Your task to perform on an android device: open wifi settings Image 0: 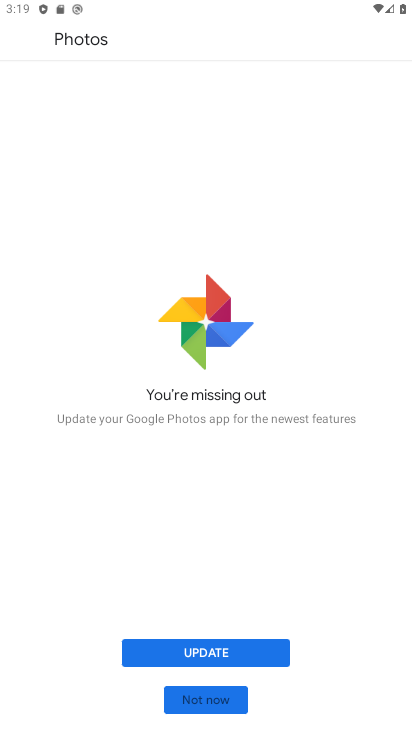
Step 0: press home button
Your task to perform on an android device: open wifi settings Image 1: 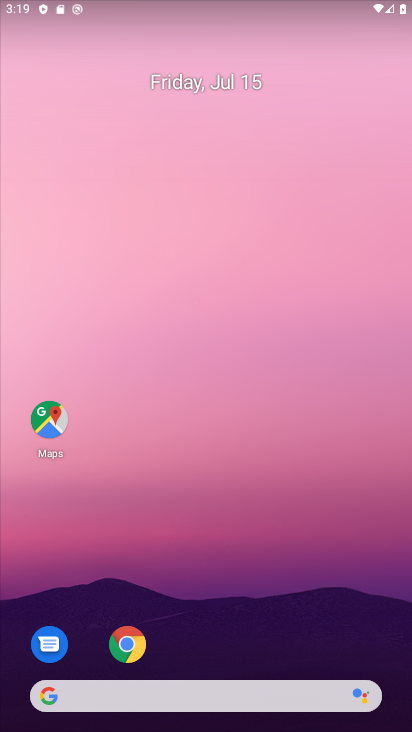
Step 1: drag from (267, 653) to (219, 82)
Your task to perform on an android device: open wifi settings Image 2: 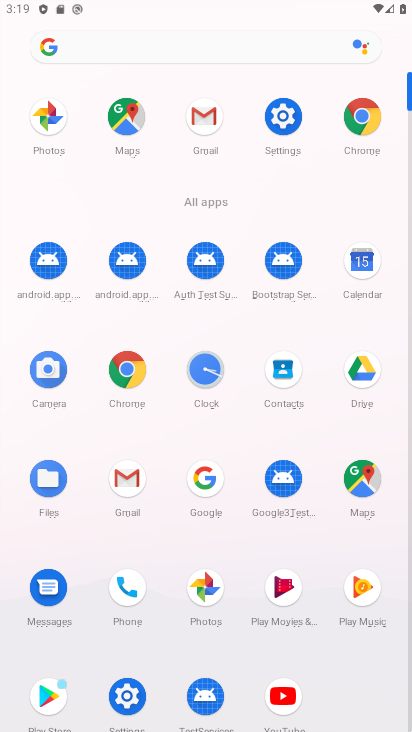
Step 2: click (270, 121)
Your task to perform on an android device: open wifi settings Image 3: 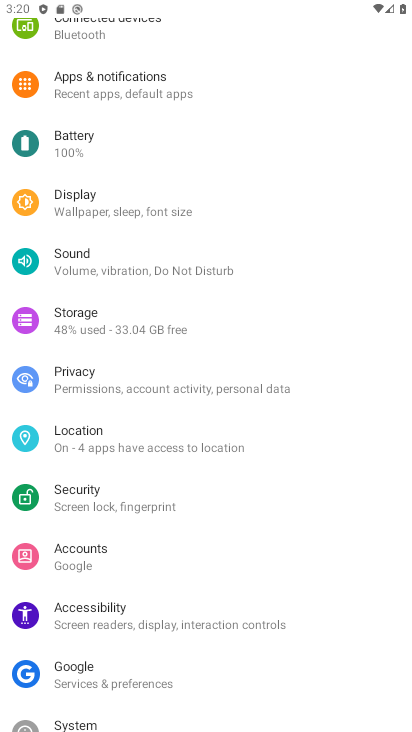
Step 3: drag from (148, 49) to (186, 408)
Your task to perform on an android device: open wifi settings Image 4: 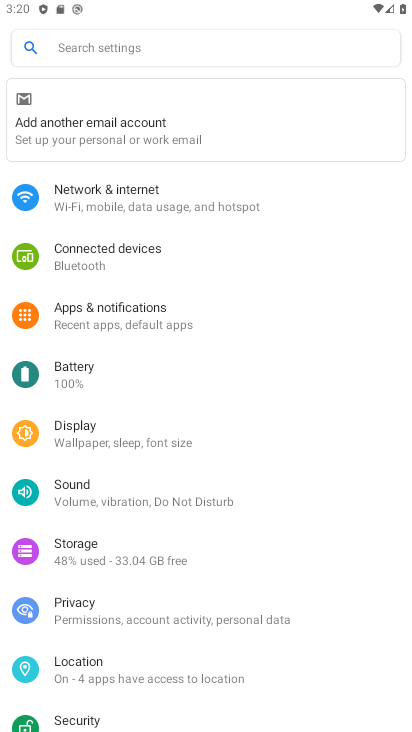
Step 4: click (140, 195)
Your task to perform on an android device: open wifi settings Image 5: 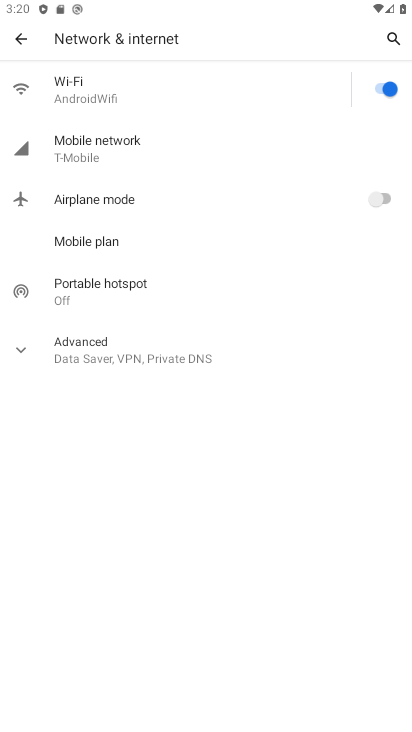
Step 5: click (170, 73)
Your task to perform on an android device: open wifi settings Image 6: 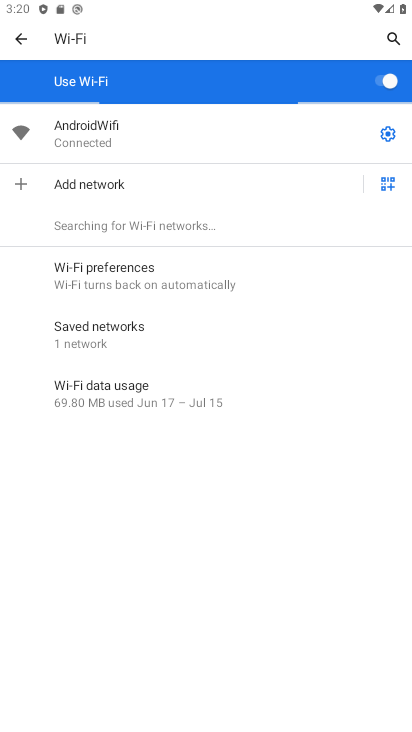
Step 6: task complete